Your task to perform on an android device: Open Yahoo.com Image 0: 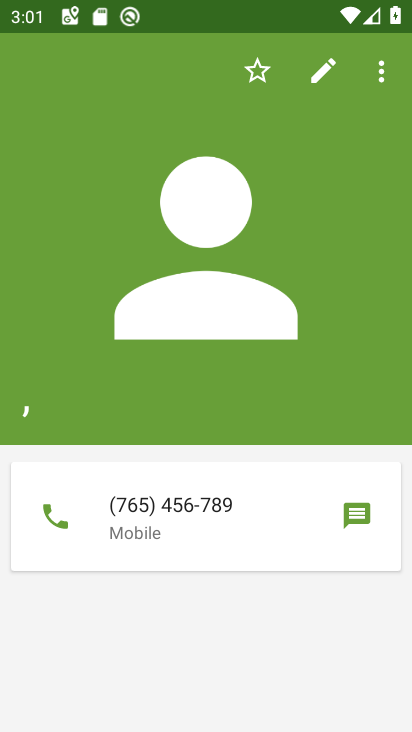
Step 0: press home button
Your task to perform on an android device: Open Yahoo.com Image 1: 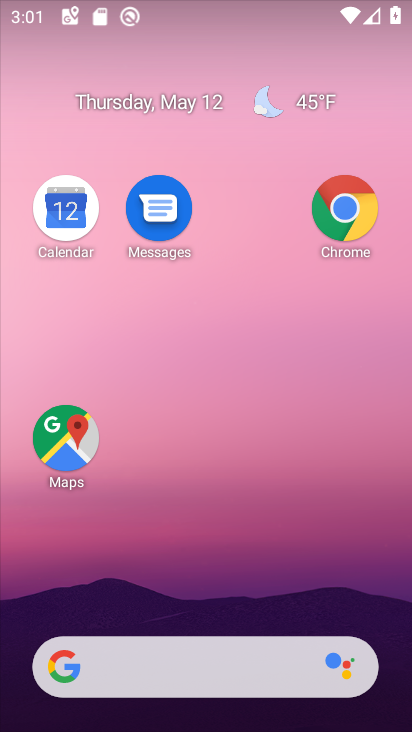
Step 1: drag from (165, 600) to (268, 95)
Your task to perform on an android device: Open Yahoo.com Image 2: 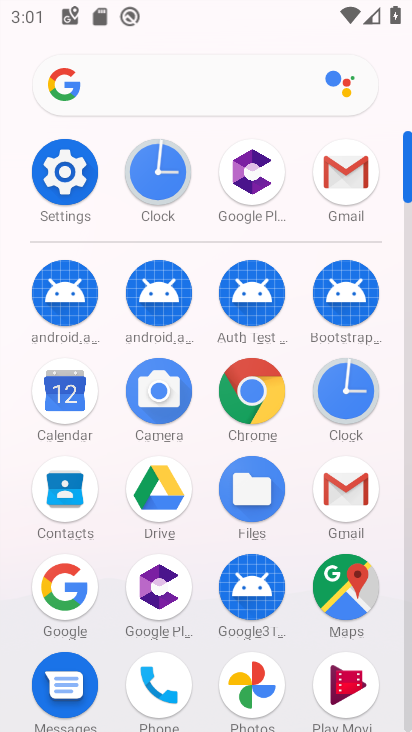
Step 2: click (181, 102)
Your task to perform on an android device: Open Yahoo.com Image 3: 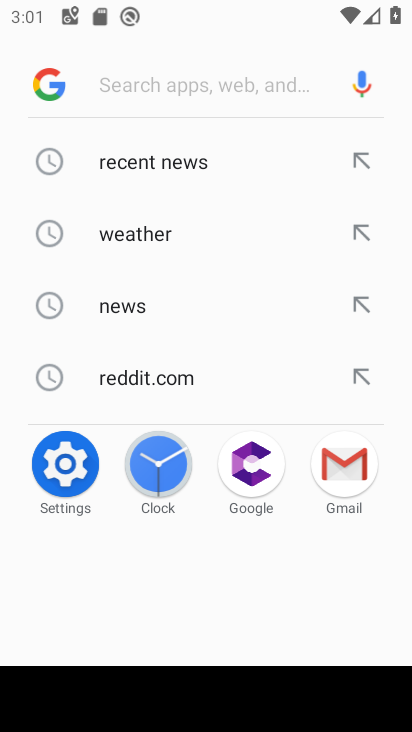
Step 3: type "yahoo.com"
Your task to perform on an android device: Open Yahoo.com Image 4: 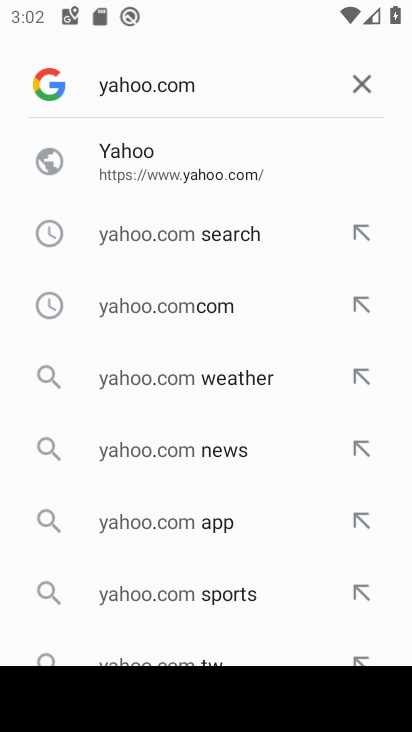
Step 4: click (154, 177)
Your task to perform on an android device: Open Yahoo.com Image 5: 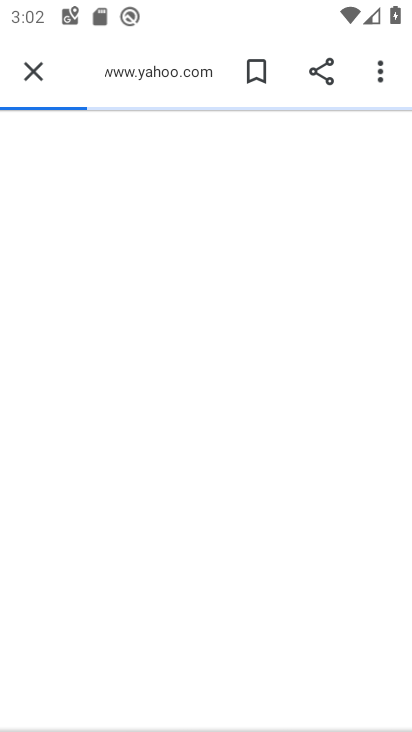
Step 5: task complete